Your task to perform on an android device: turn on data saver in the chrome app Image 0: 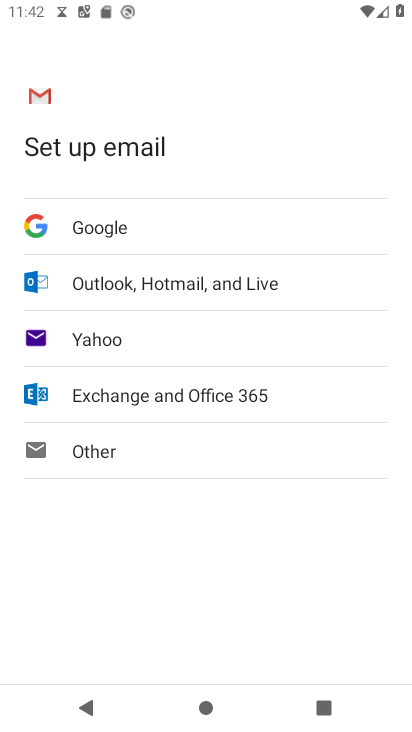
Step 0: press home button
Your task to perform on an android device: turn on data saver in the chrome app Image 1: 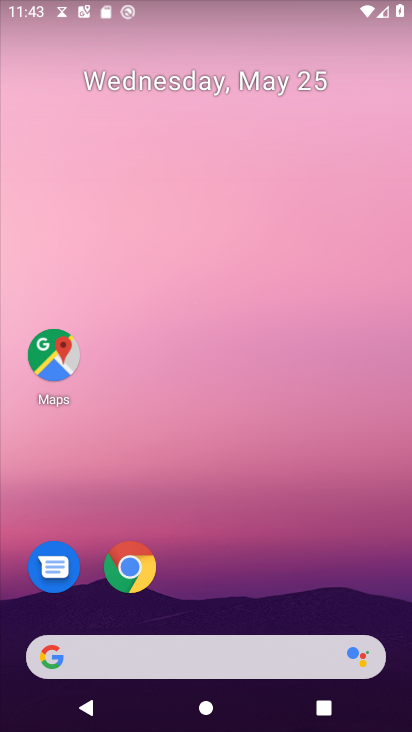
Step 1: click (128, 568)
Your task to perform on an android device: turn on data saver in the chrome app Image 2: 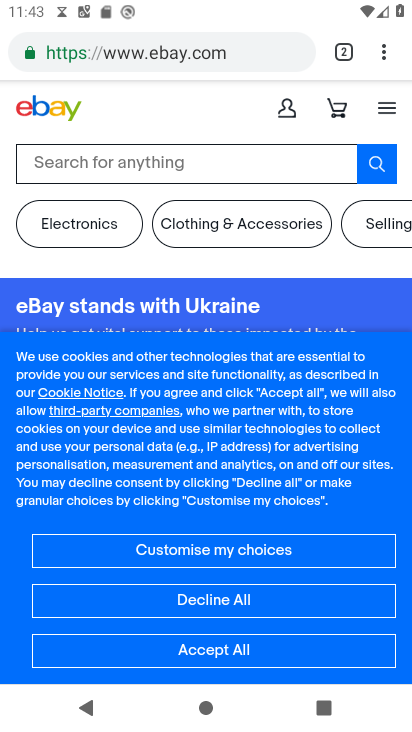
Step 2: click (390, 54)
Your task to perform on an android device: turn on data saver in the chrome app Image 3: 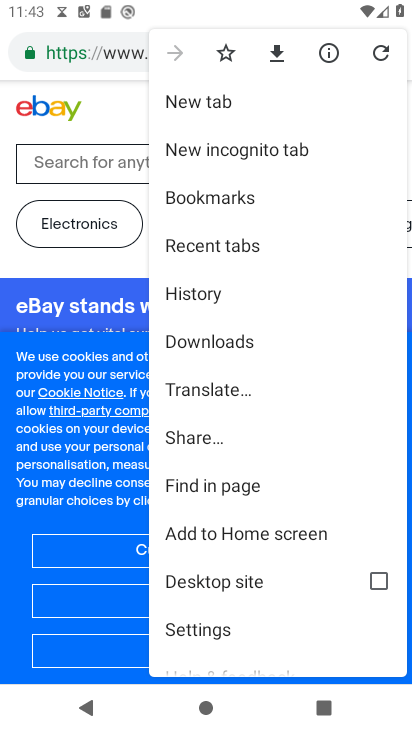
Step 3: drag from (300, 644) to (318, 191)
Your task to perform on an android device: turn on data saver in the chrome app Image 4: 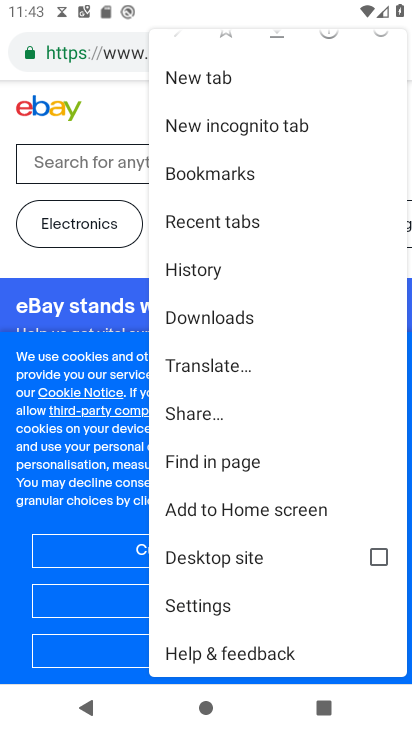
Step 4: click (208, 600)
Your task to perform on an android device: turn on data saver in the chrome app Image 5: 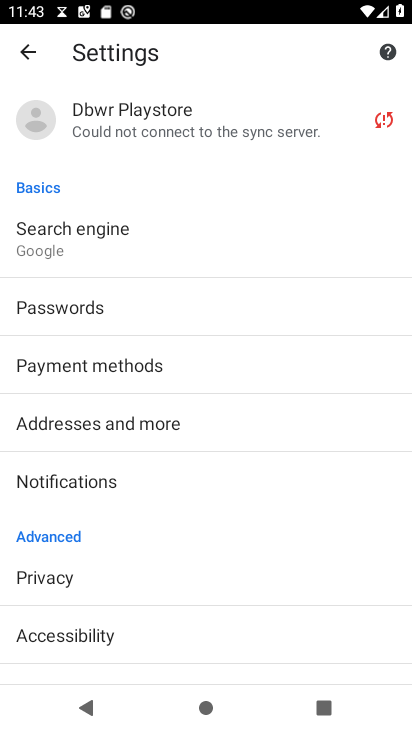
Step 5: drag from (296, 600) to (276, 272)
Your task to perform on an android device: turn on data saver in the chrome app Image 6: 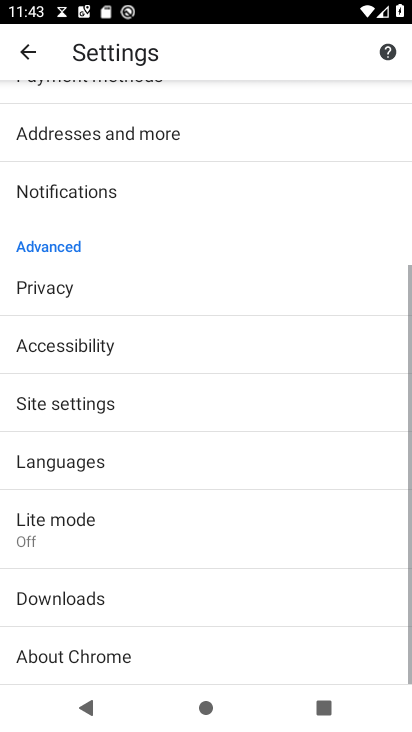
Step 6: drag from (130, 569) to (136, 265)
Your task to perform on an android device: turn on data saver in the chrome app Image 7: 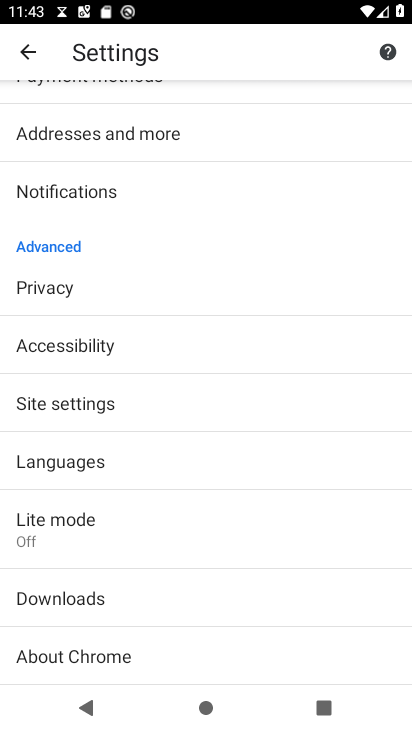
Step 7: click (78, 290)
Your task to perform on an android device: turn on data saver in the chrome app Image 8: 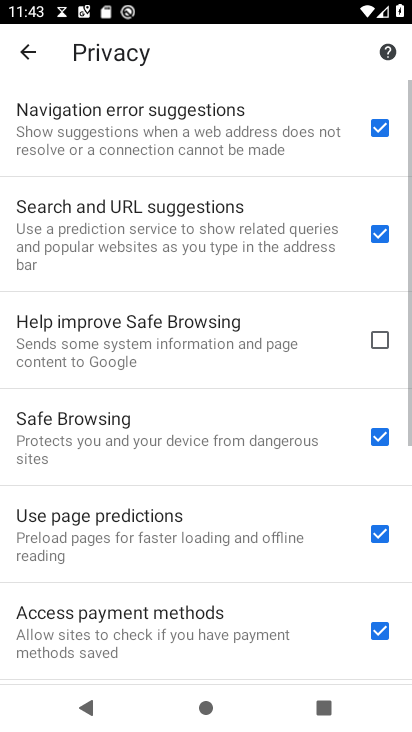
Step 8: drag from (159, 597) to (177, 252)
Your task to perform on an android device: turn on data saver in the chrome app Image 9: 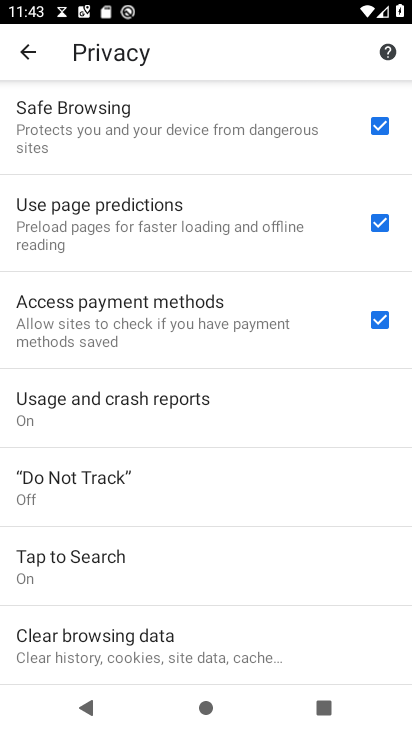
Step 9: drag from (205, 563) to (186, 233)
Your task to perform on an android device: turn on data saver in the chrome app Image 10: 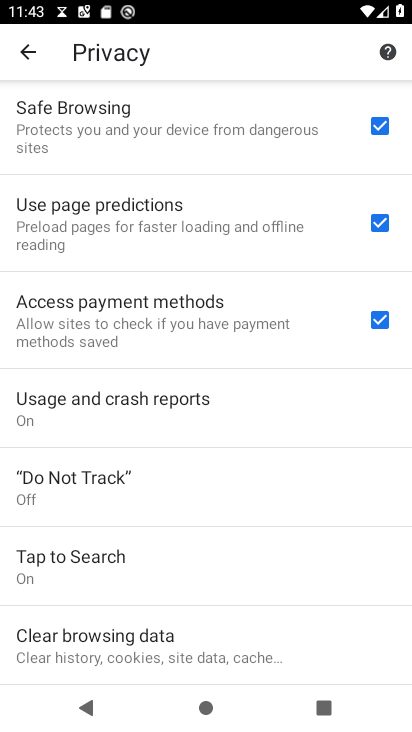
Step 10: press back button
Your task to perform on an android device: turn on data saver in the chrome app Image 11: 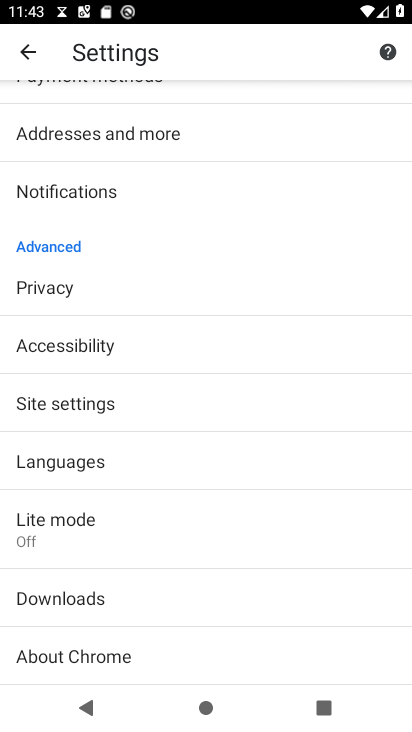
Step 11: click (127, 412)
Your task to perform on an android device: turn on data saver in the chrome app Image 12: 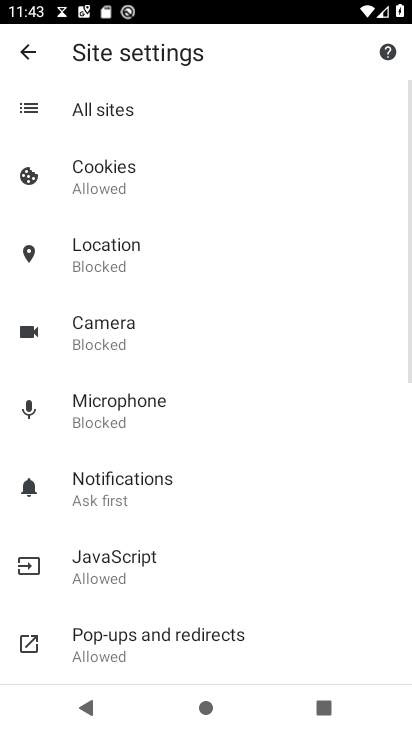
Step 12: drag from (154, 597) to (144, 301)
Your task to perform on an android device: turn on data saver in the chrome app Image 13: 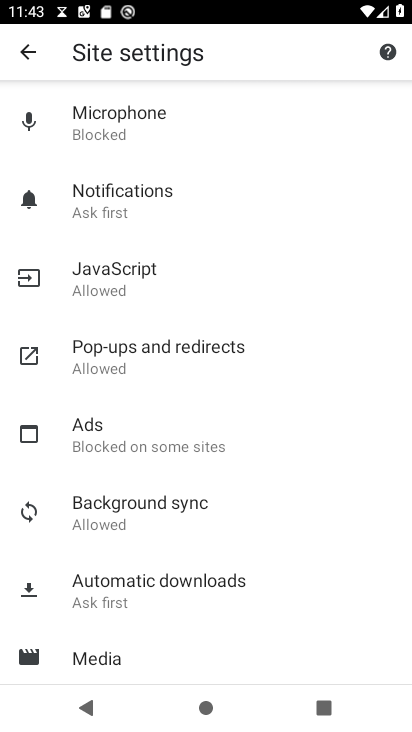
Step 13: drag from (193, 594) to (222, 343)
Your task to perform on an android device: turn on data saver in the chrome app Image 14: 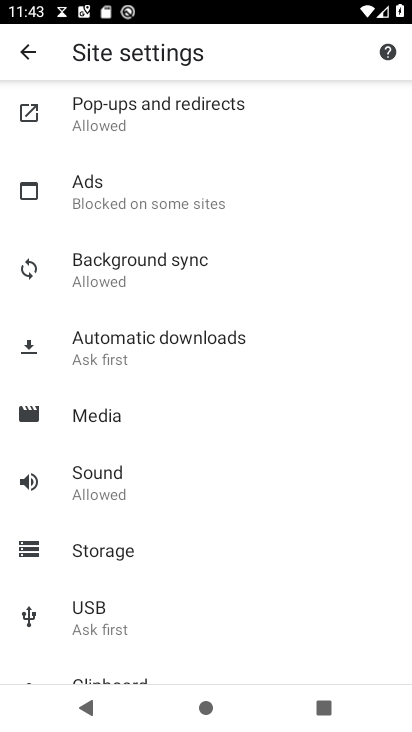
Step 14: drag from (206, 629) to (209, 306)
Your task to perform on an android device: turn on data saver in the chrome app Image 15: 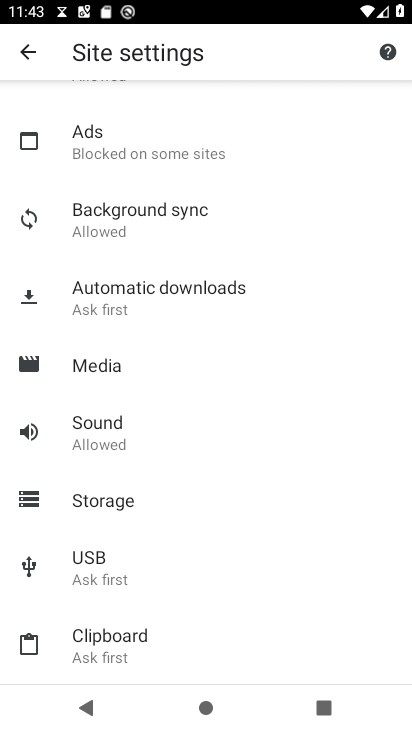
Step 15: press back button
Your task to perform on an android device: turn on data saver in the chrome app Image 16: 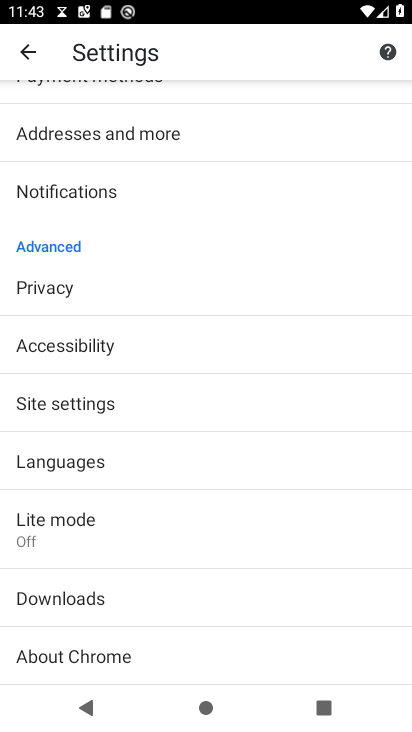
Step 16: click (68, 291)
Your task to perform on an android device: turn on data saver in the chrome app Image 17: 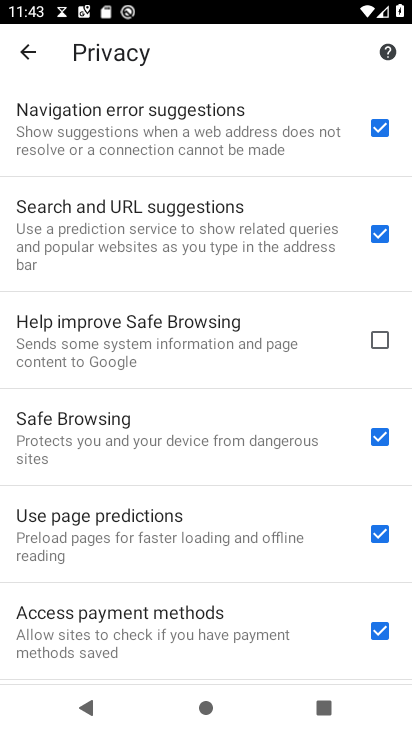
Step 17: press back button
Your task to perform on an android device: turn on data saver in the chrome app Image 18: 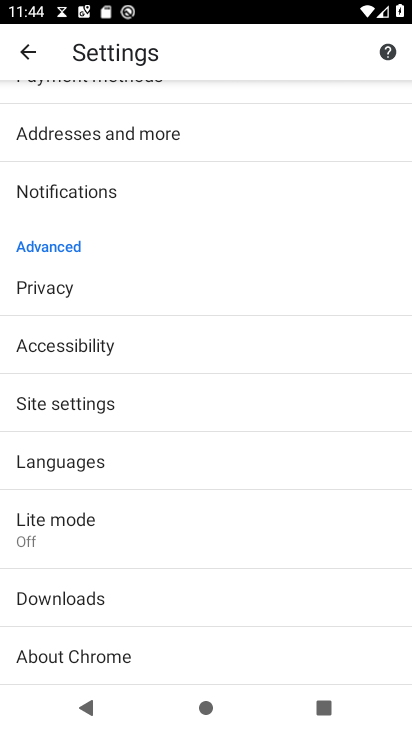
Step 18: click (205, 659)
Your task to perform on an android device: turn on data saver in the chrome app Image 19: 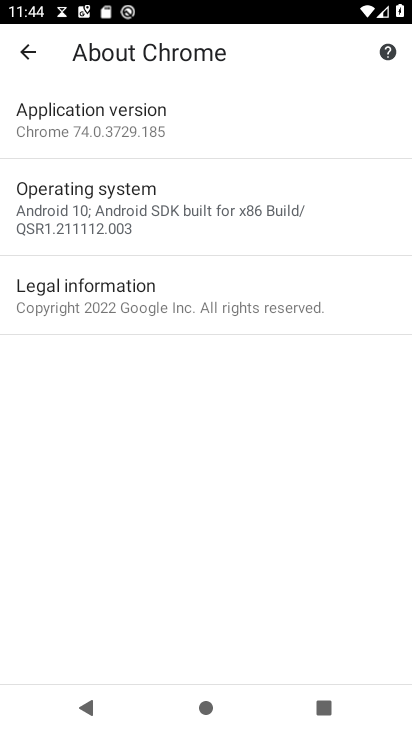
Step 19: task complete